Your task to perform on an android device: Show me productivity apps on the Play Store Image 0: 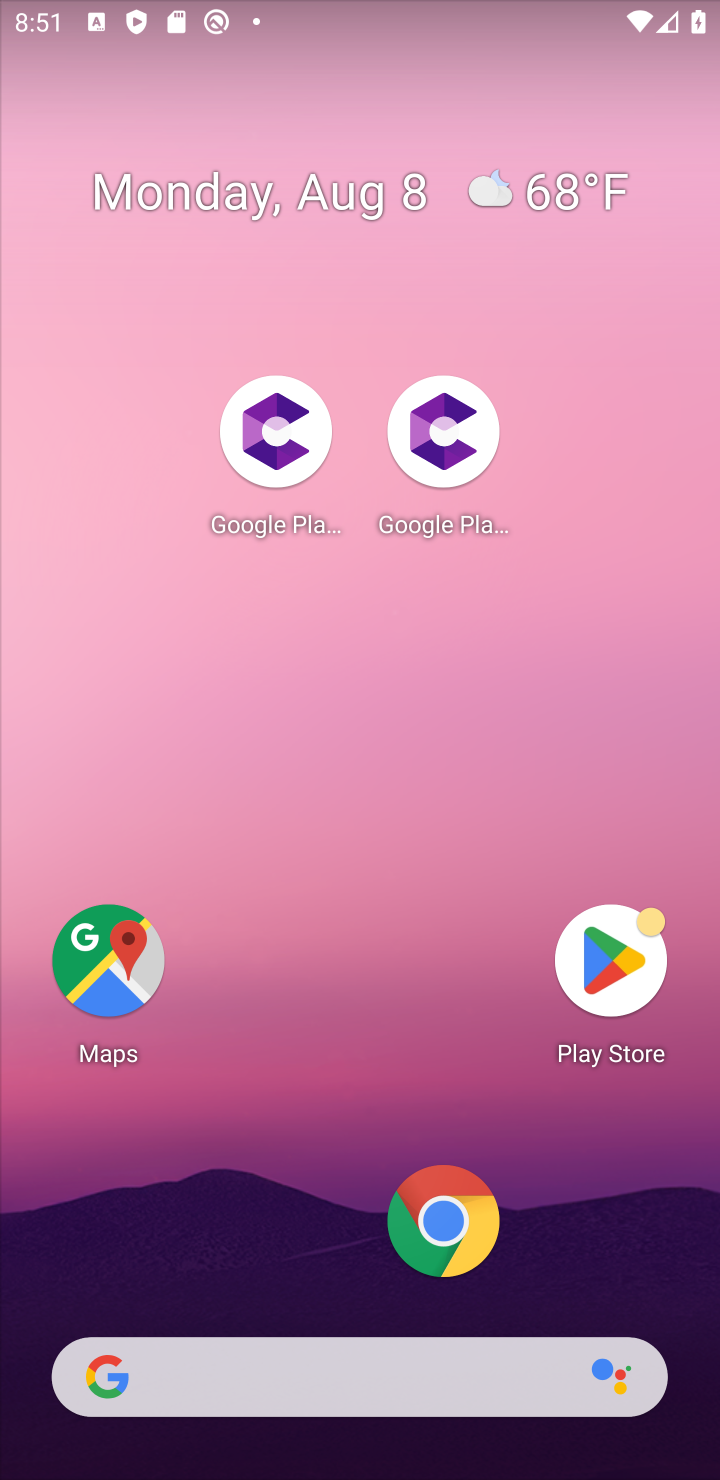
Step 0: drag from (206, 796) to (82, 83)
Your task to perform on an android device: Show me productivity apps on the Play Store Image 1: 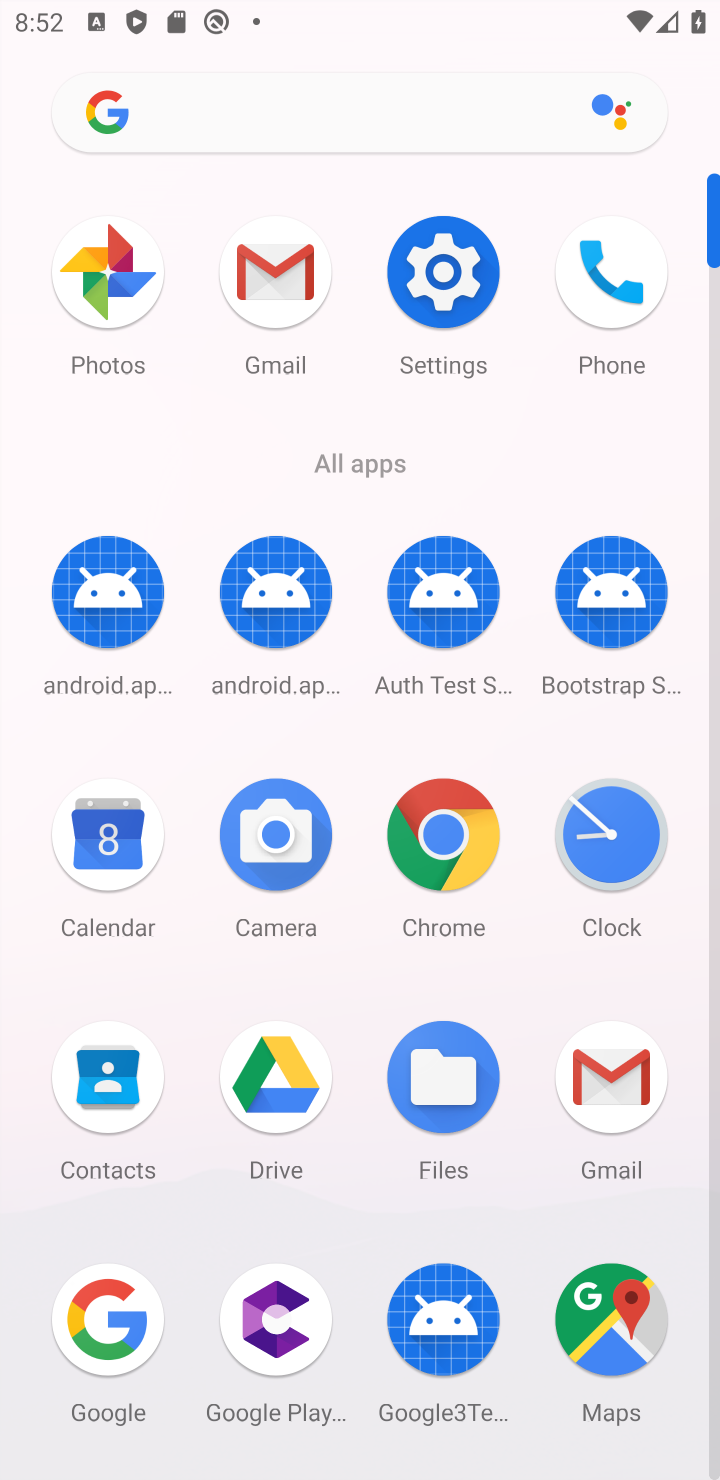
Step 1: drag from (381, 1335) to (363, 739)
Your task to perform on an android device: Show me productivity apps on the Play Store Image 2: 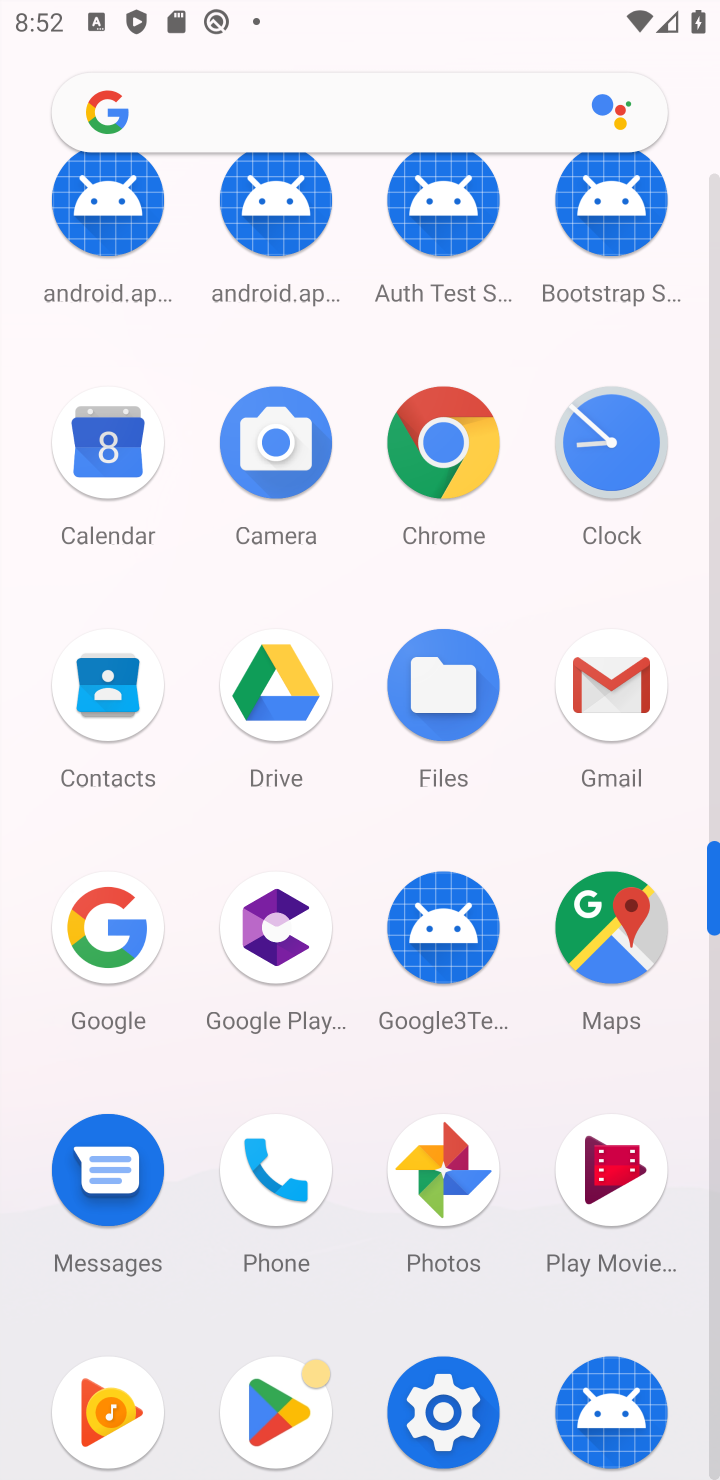
Step 2: click (276, 1407)
Your task to perform on an android device: Show me productivity apps on the Play Store Image 3: 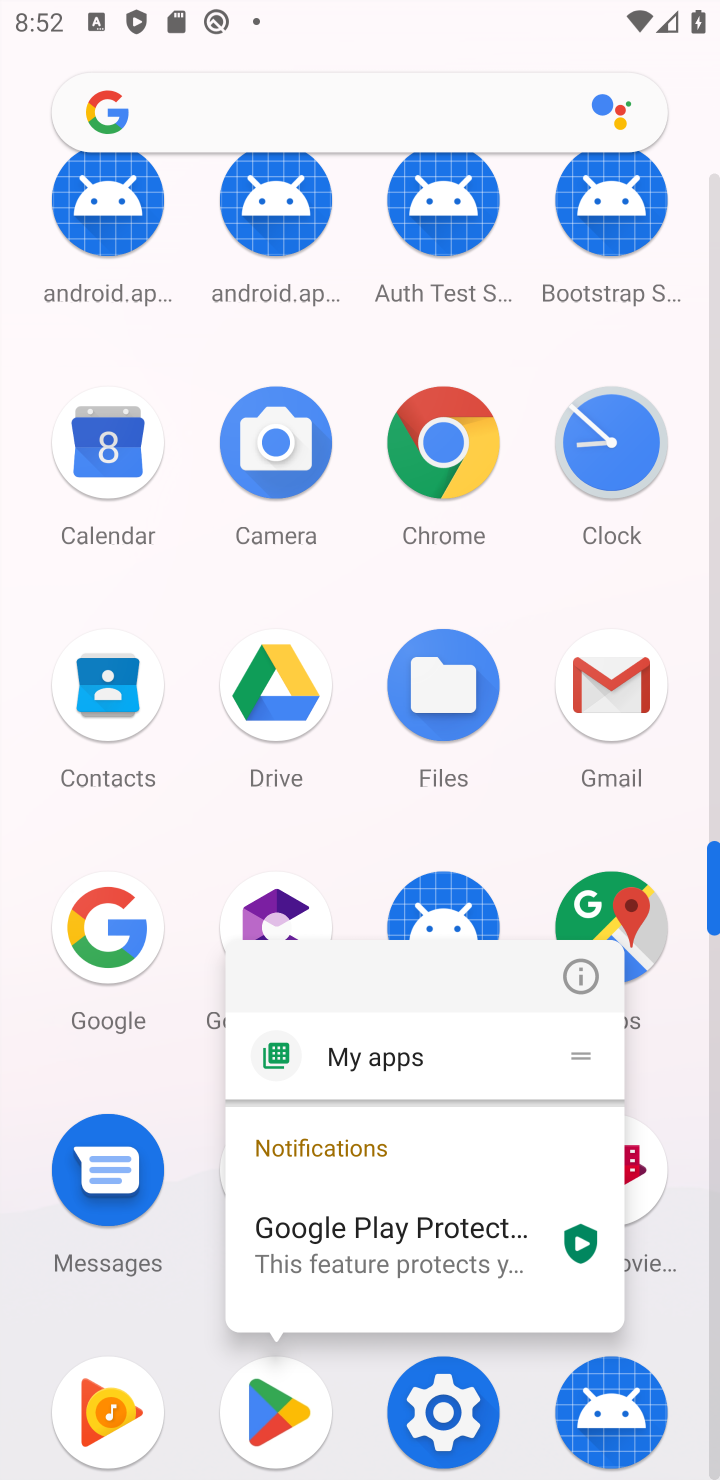
Step 3: click (276, 1407)
Your task to perform on an android device: Show me productivity apps on the Play Store Image 4: 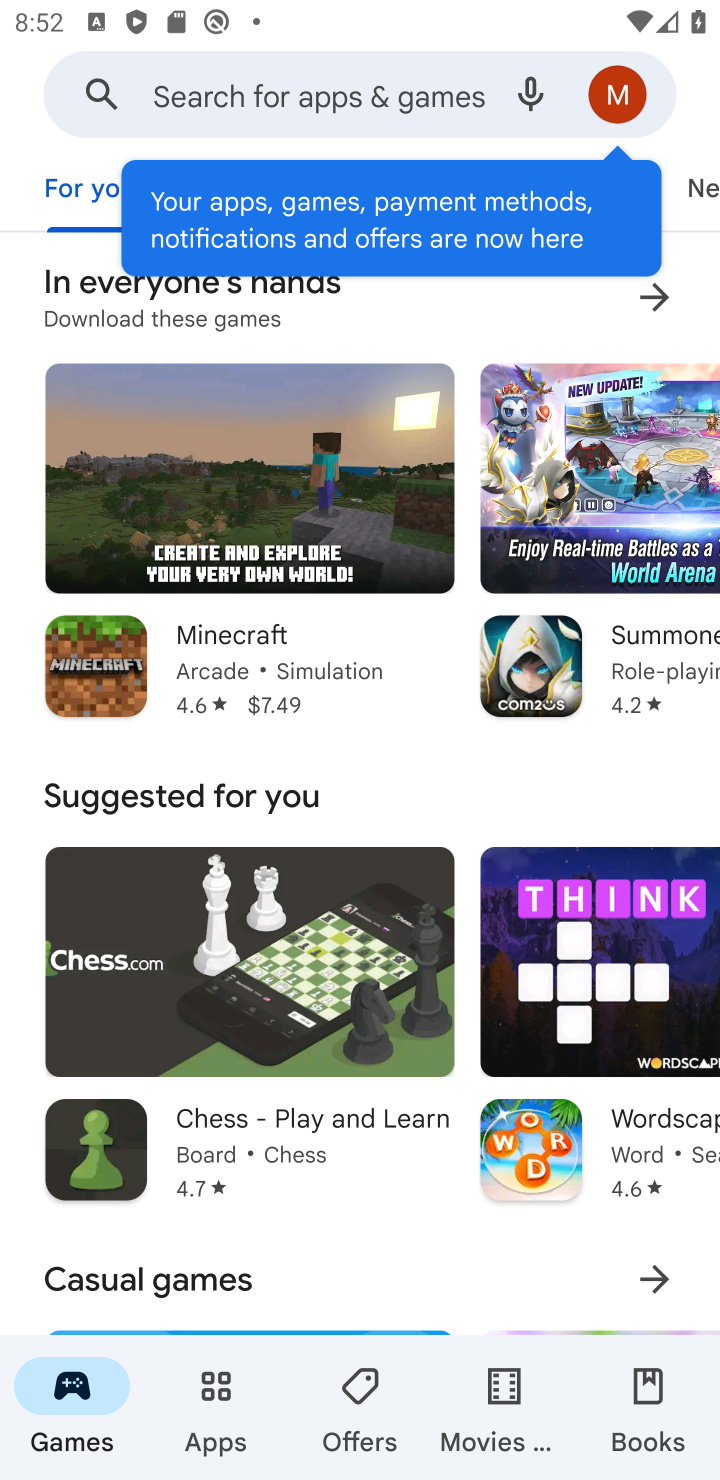
Step 4: click (210, 1413)
Your task to perform on an android device: Show me productivity apps on the Play Store Image 5: 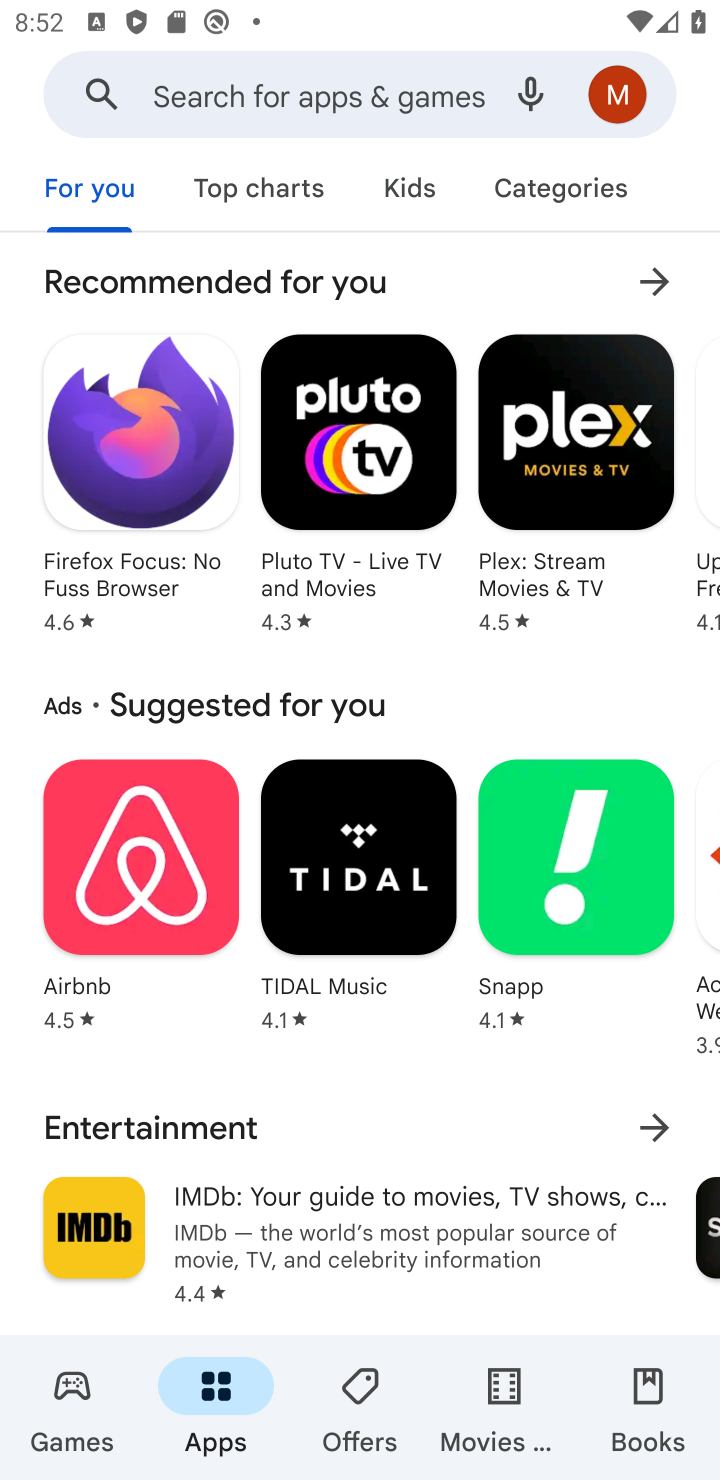
Step 5: click (548, 214)
Your task to perform on an android device: Show me productivity apps on the Play Store Image 6: 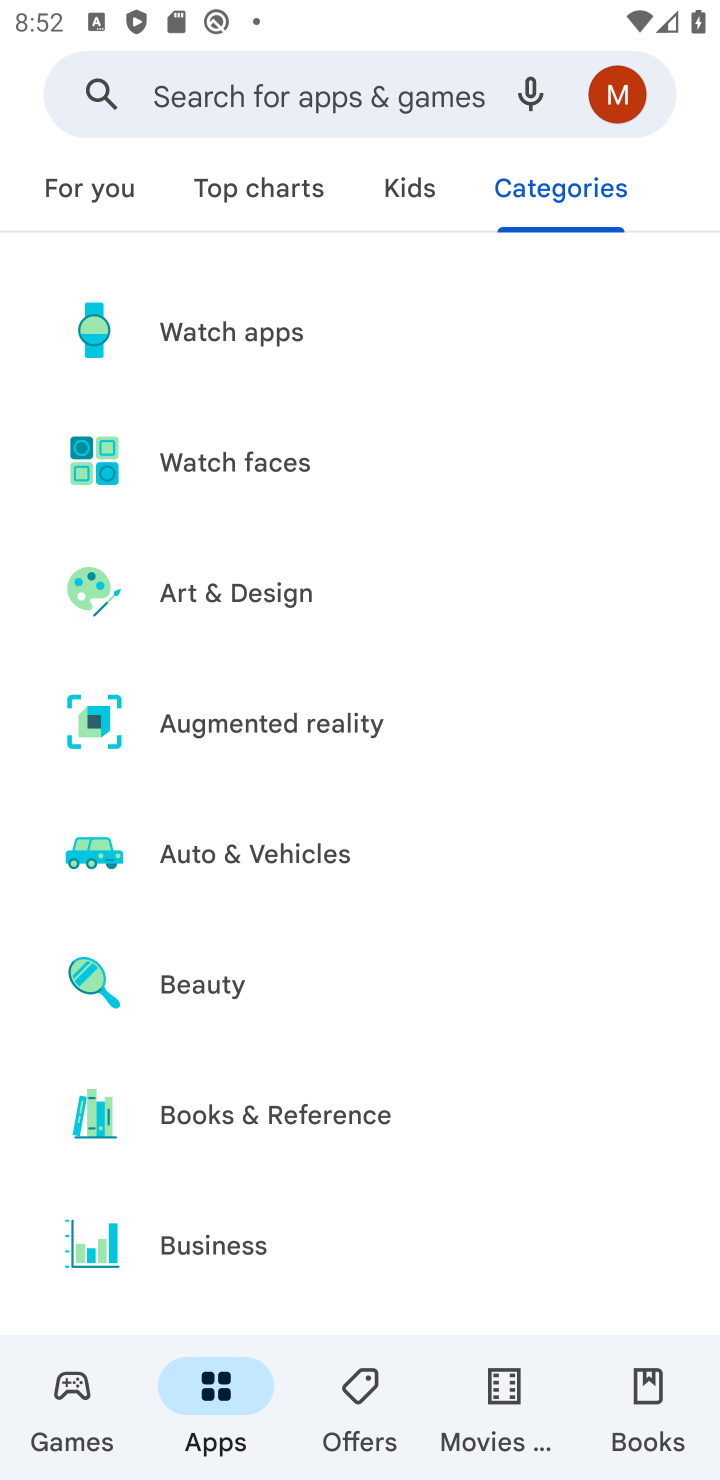
Step 6: drag from (345, 1249) to (307, 221)
Your task to perform on an android device: Show me productivity apps on the Play Store Image 7: 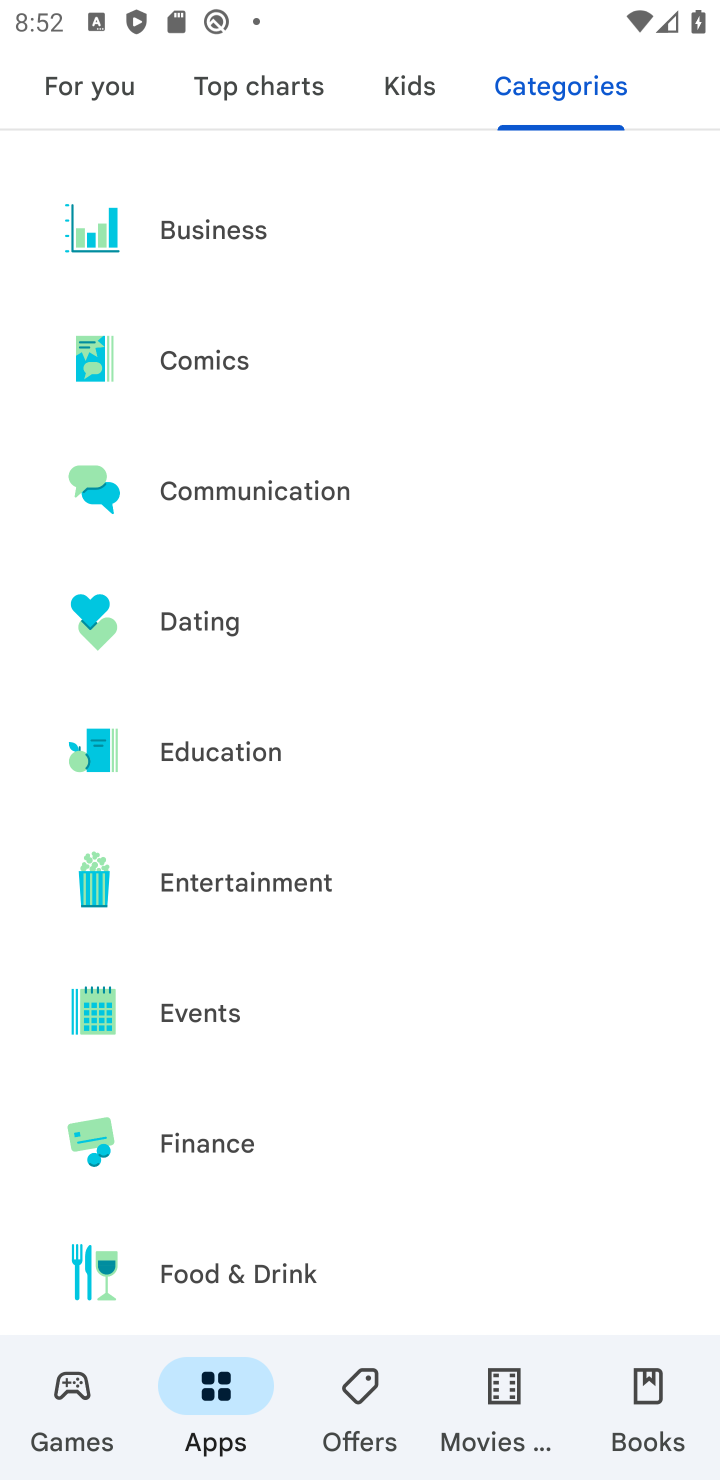
Step 7: drag from (287, 1302) to (244, 80)
Your task to perform on an android device: Show me productivity apps on the Play Store Image 8: 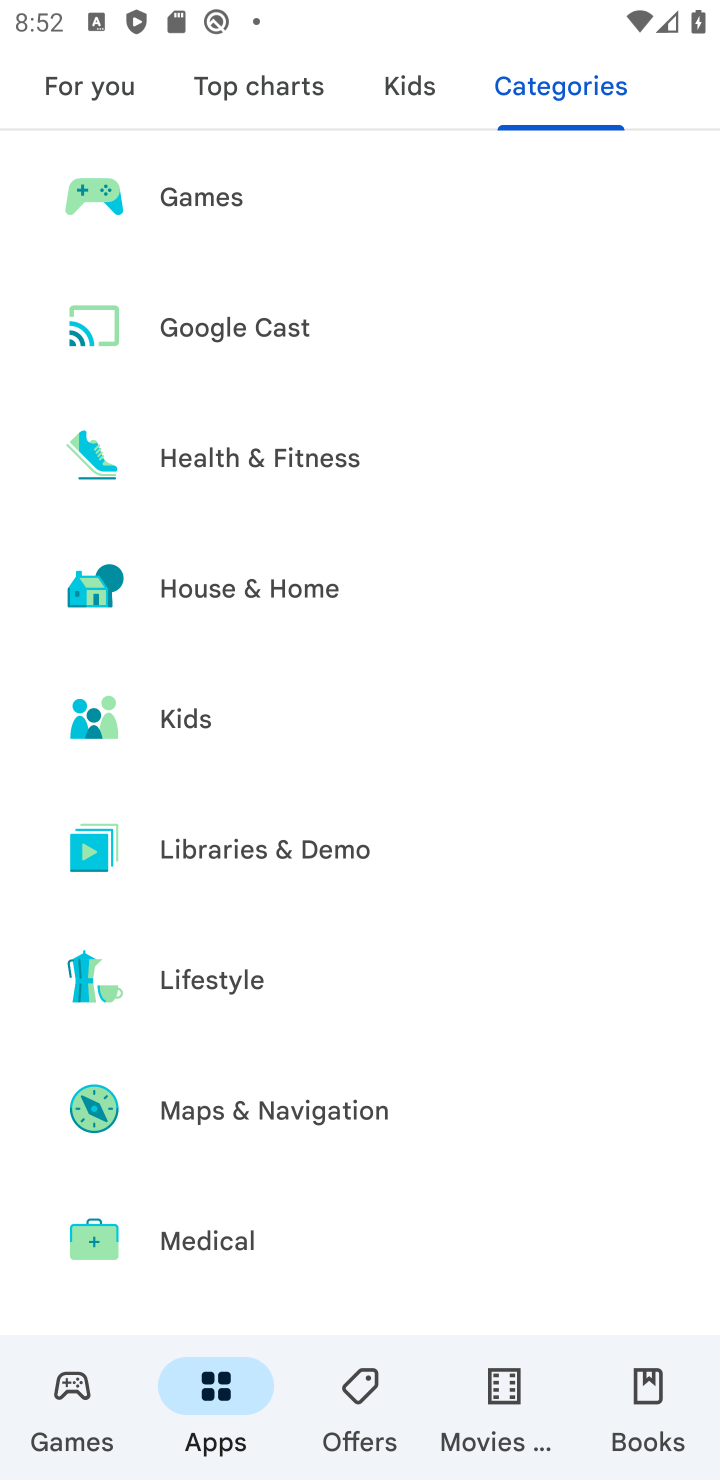
Step 8: drag from (314, 1255) to (395, 238)
Your task to perform on an android device: Show me productivity apps on the Play Store Image 9: 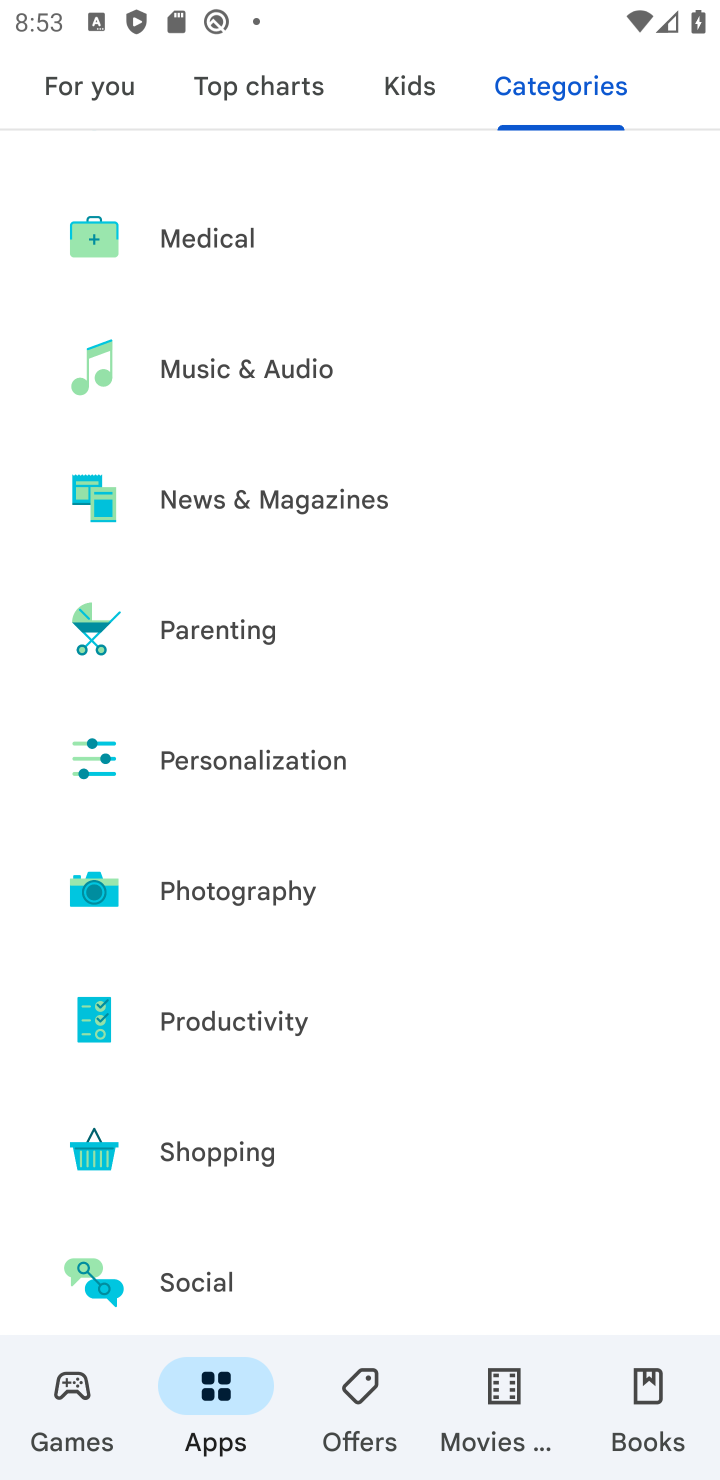
Step 9: click (330, 1028)
Your task to perform on an android device: Show me productivity apps on the Play Store Image 10: 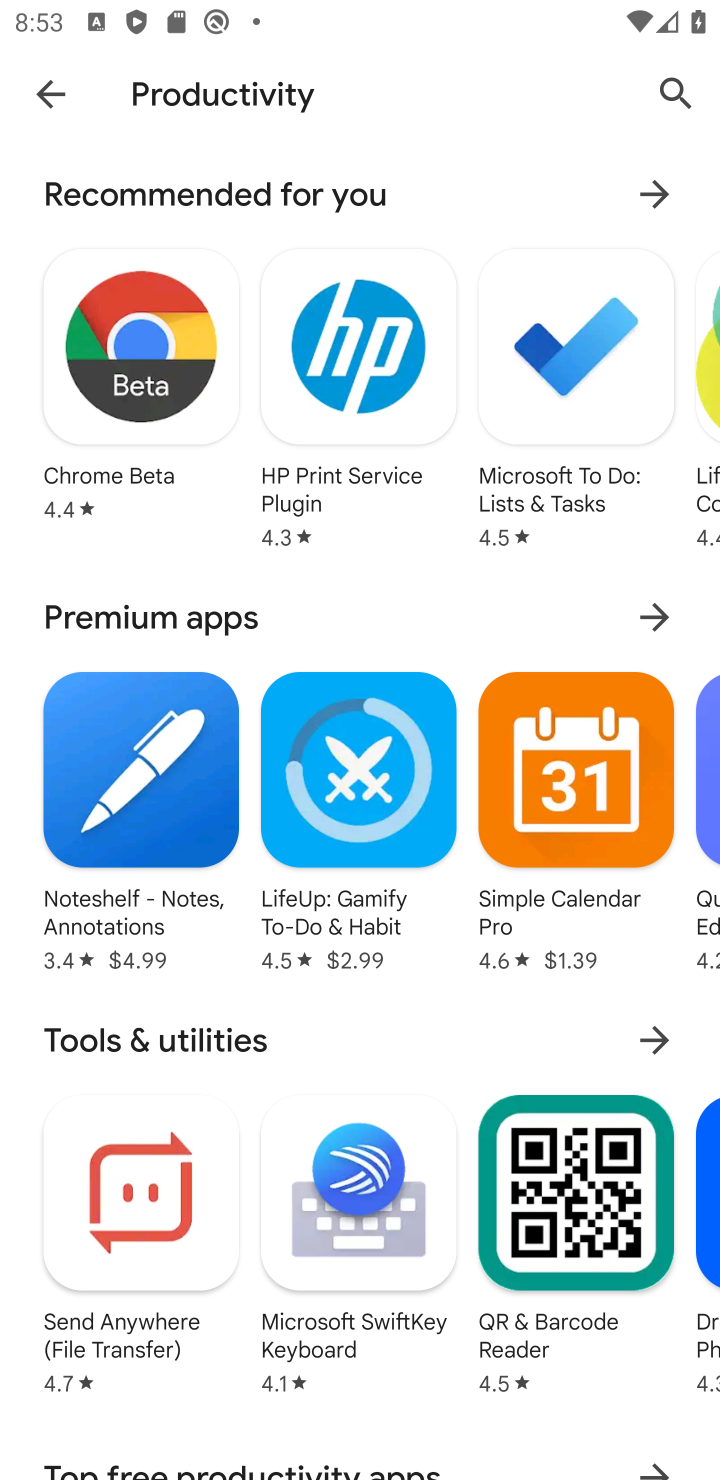
Step 10: task complete